Your task to perform on an android device: change notifications settings Image 0: 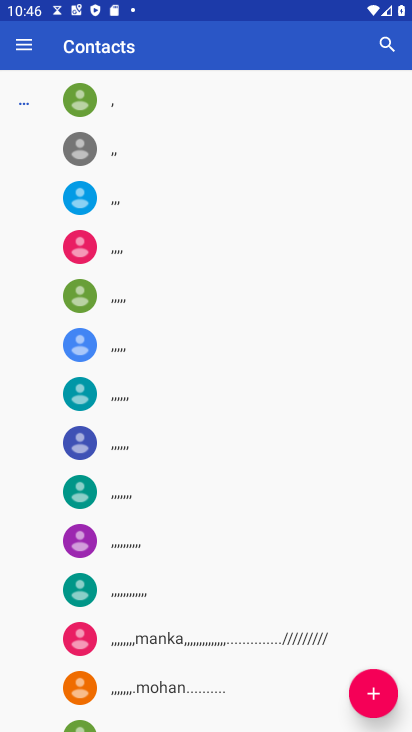
Step 0: press home button
Your task to perform on an android device: change notifications settings Image 1: 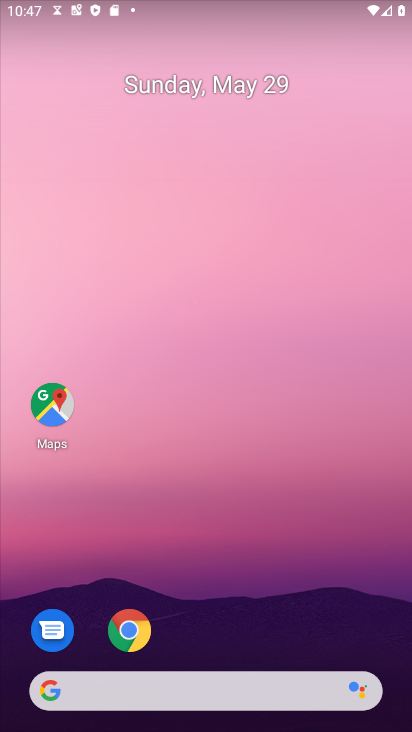
Step 1: drag from (292, 586) to (304, 119)
Your task to perform on an android device: change notifications settings Image 2: 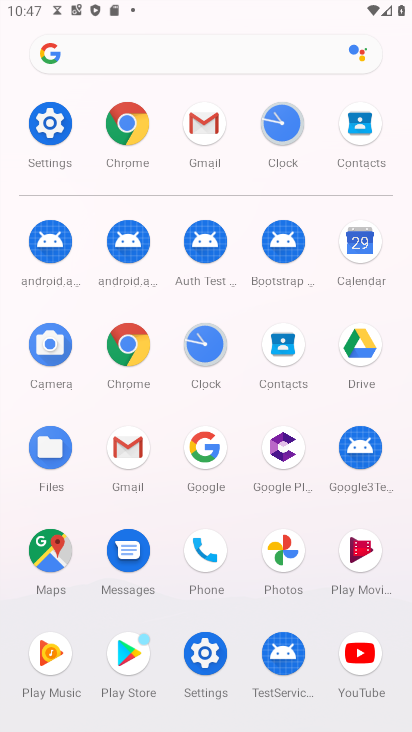
Step 2: click (188, 645)
Your task to perform on an android device: change notifications settings Image 3: 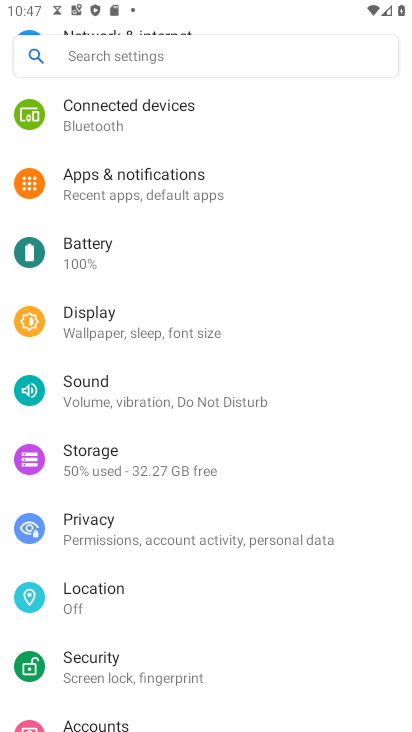
Step 3: click (183, 191)
Your task to perform on an android device: change notifications settings Image 4: 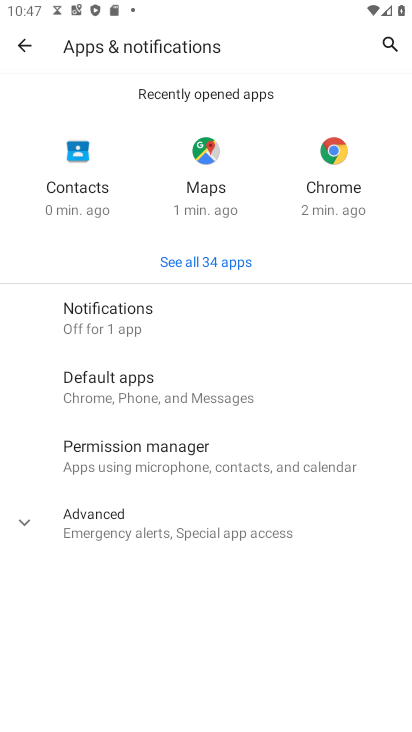
Step 4: click (122, 325)
Your task to perform on an android device: change notifications settings Image 5: 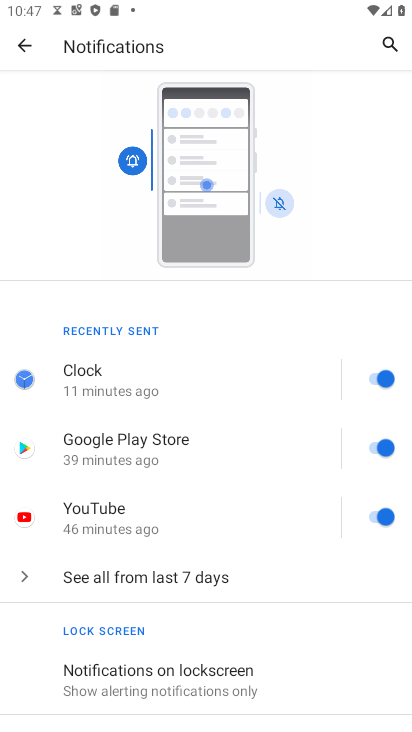
Step 5: drag from (292, 636) to (265, 318)
Your task to perform on an android device: change notifications settings Image 6: 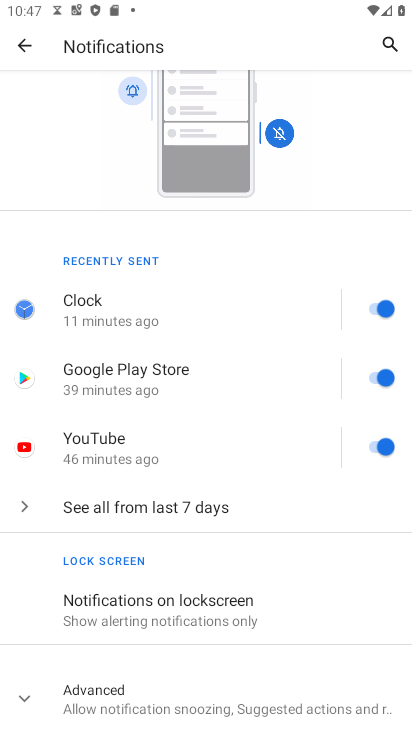
Step 6: click (221, 702)
Your task to perform on an android device: change notifications settings Image 7: 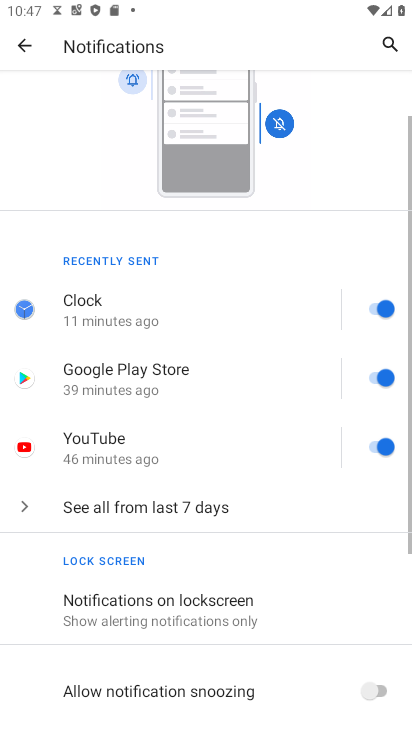
Step 7: drag from (240, 665) to (214, 281)
Your task to perform on an android device: change notifications settings Image 8: 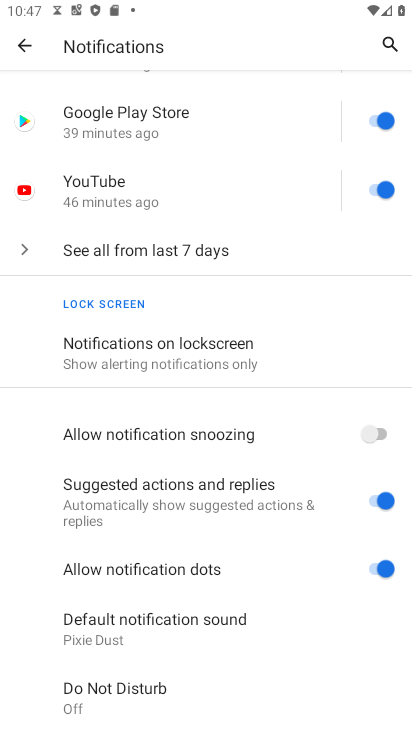
Step 8: click (380, 428)
Your task to perform on an android device: change notifications settings Image 9: 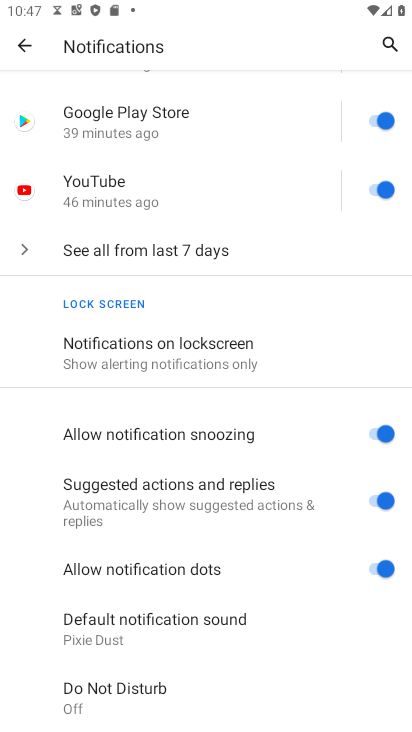
Step 9: task complete